Your task to perform on an android device: install app "Upside-Cash back on gas & food" Image 0: 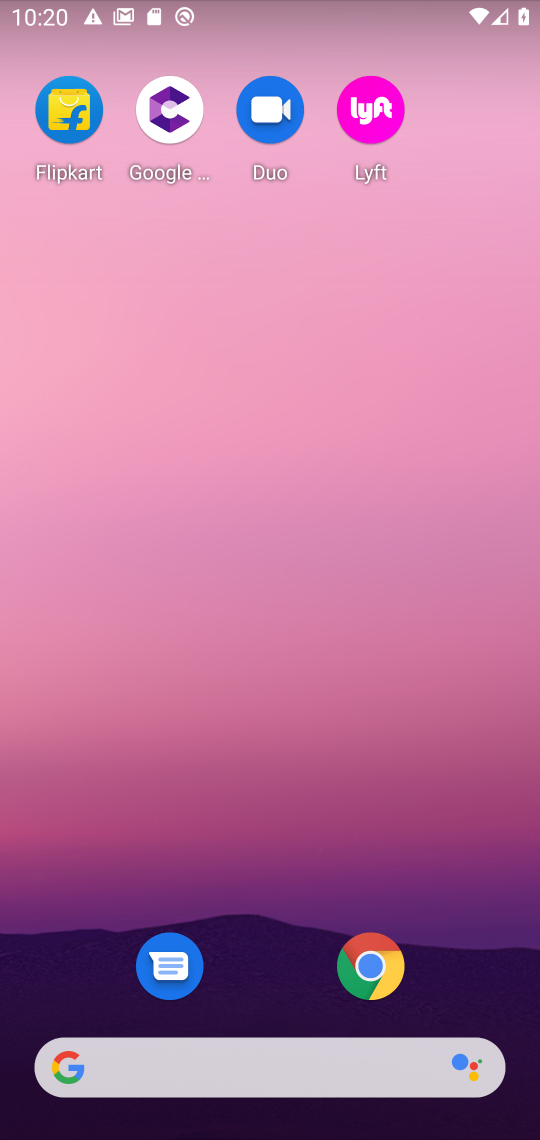
Step 0: drag from (232, 999) to (207, 13)
Your task to perform on an android device: install app "Upside-Cash back on gas & food" Image 1: 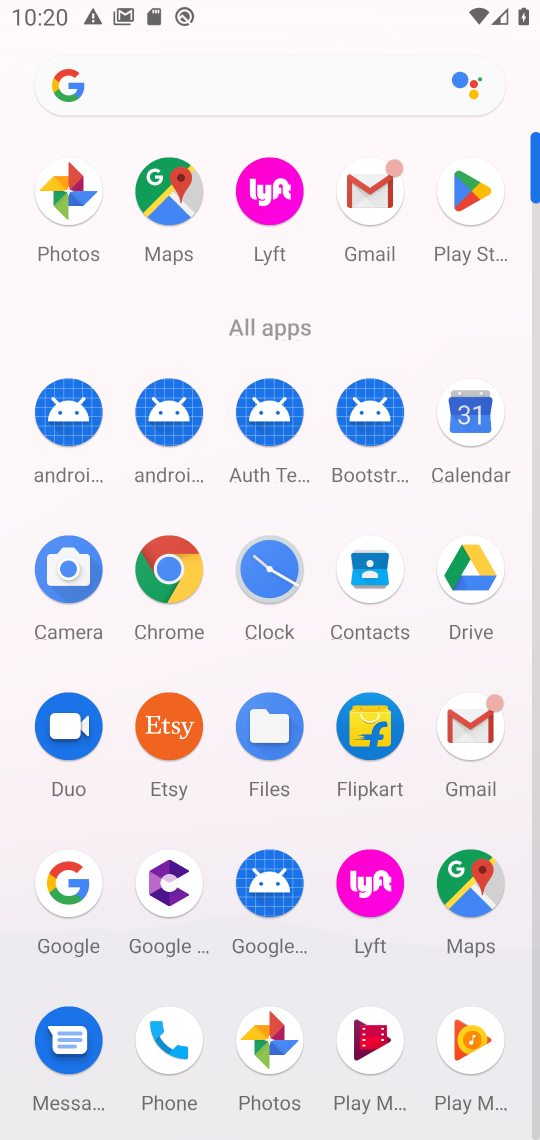
Step 1: click (466, 234)
Your task to perform on an android device: install app "Upside-Cash back on gas & food" Image 2: 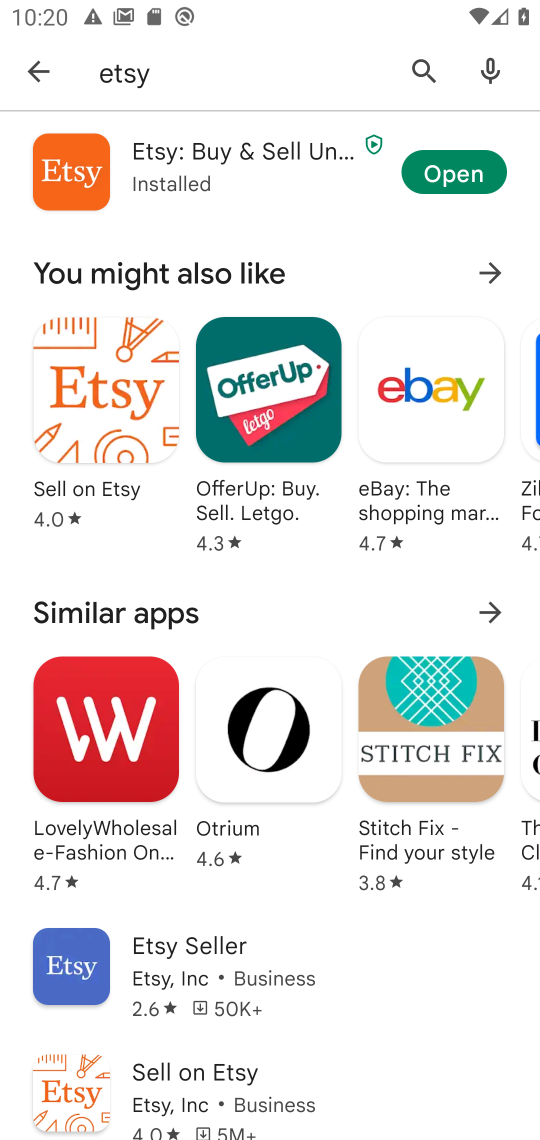
Step 2: click (224, 64)
Your task to perform on an android device: install app "Upside-Cash back on gas & food" Image 3: 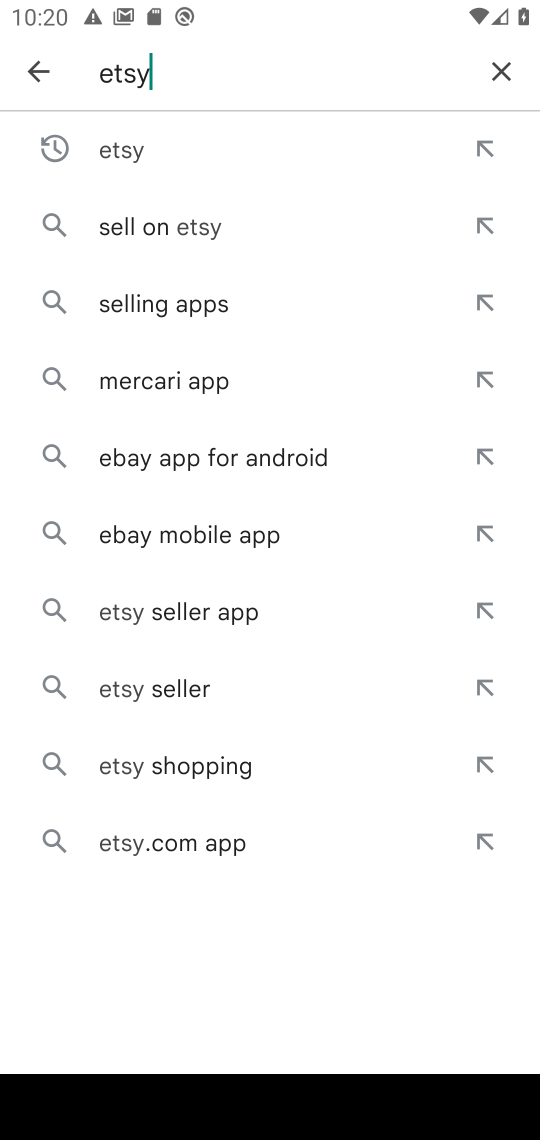
Step 3: click (508, 68)
Your task to perform on an android device: install app "Upside-Cash back on gas & food" Image 4: 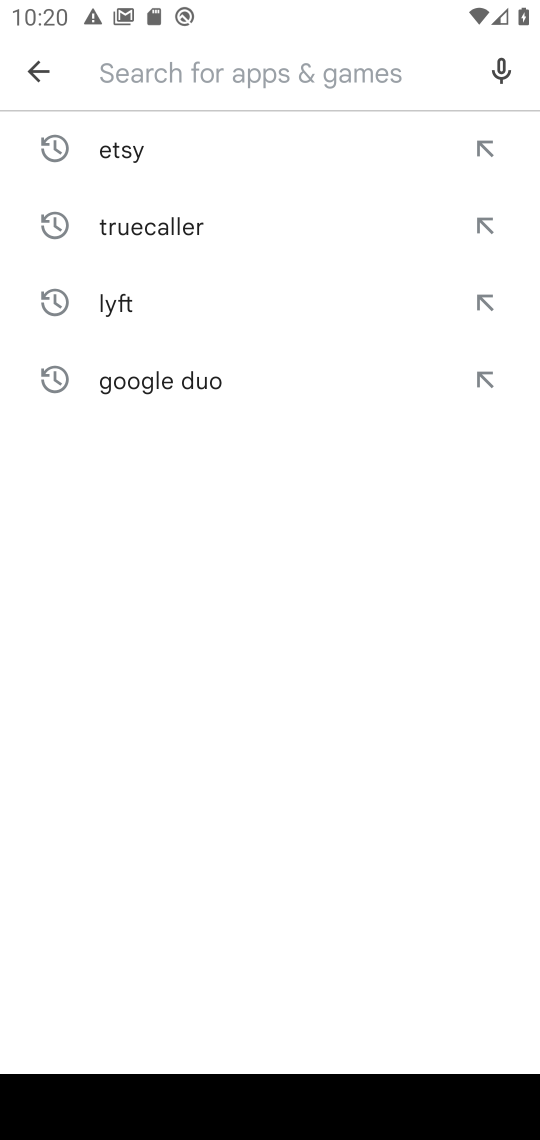
Step 4: type "upside "
Your task to perform on an android device: install app "Upside-Cash back on gas & food" Image 5: 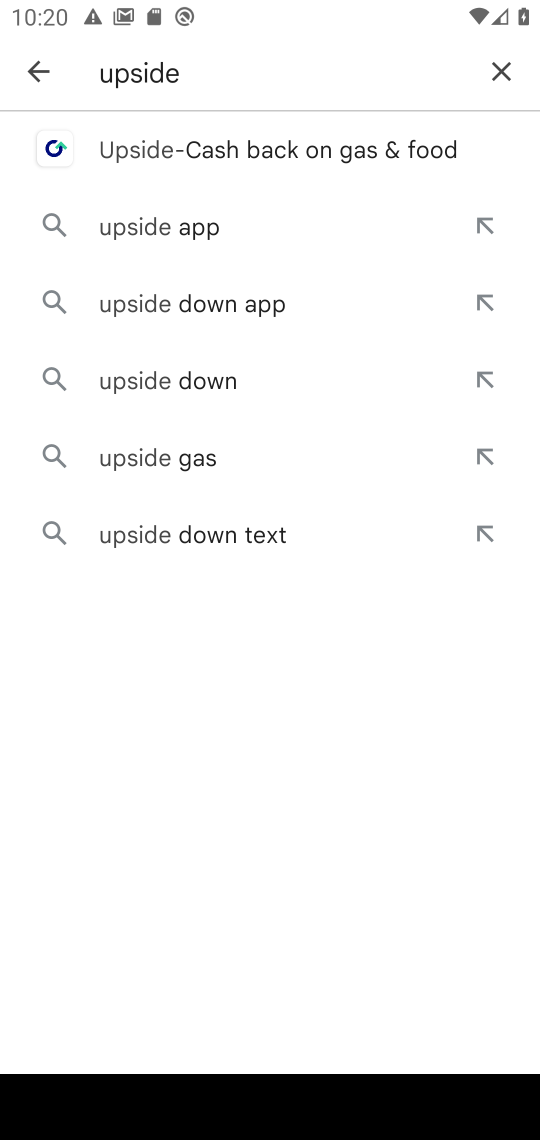
Step 5: click (256, 133)
Your task to perform on an android device: install app "Upside-Cash back on gas & food" Image 6: 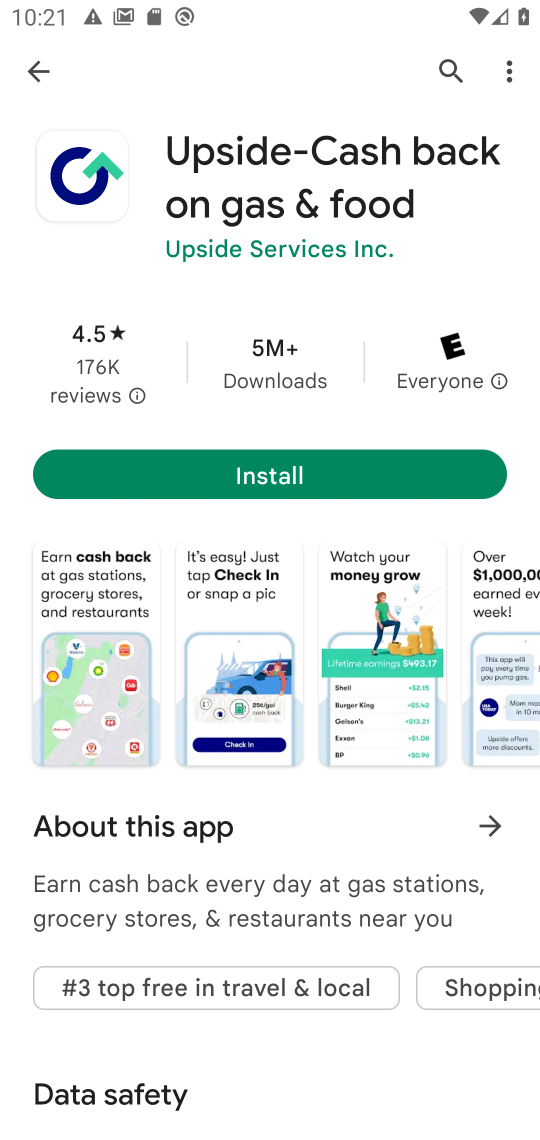
Step 6: click (338, 481)
Your task to perform on an android device: install app "Upside-Cash back on gas & food" Image 7: 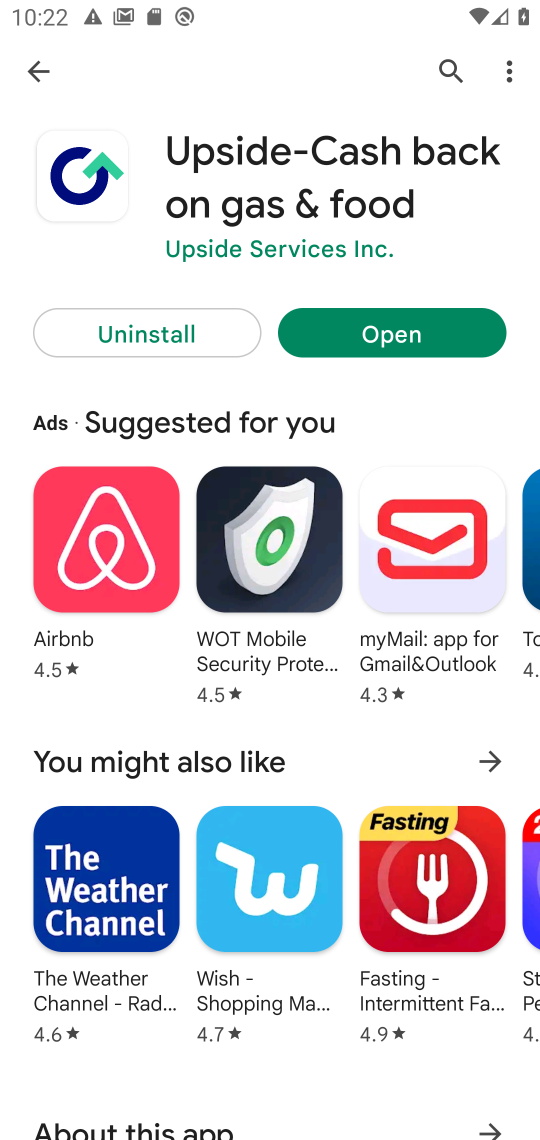
Step 7: task complete